Your task to perform on an android device: What is the news today? Image 0: 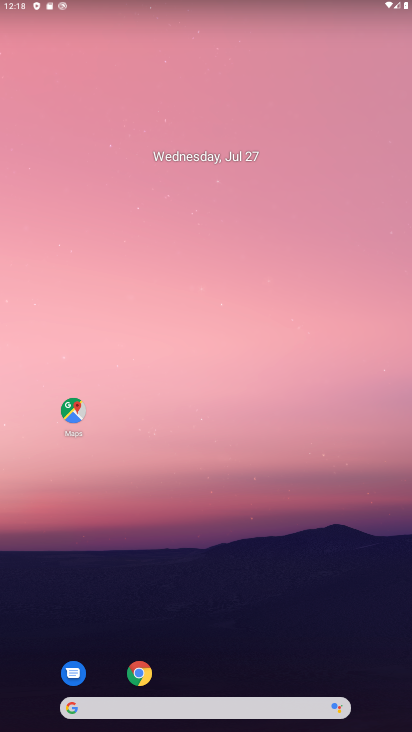
Step 0: drag from (319, 613) to (286, 59)
Your task to perform on an android device: What is the news today? Image 1: 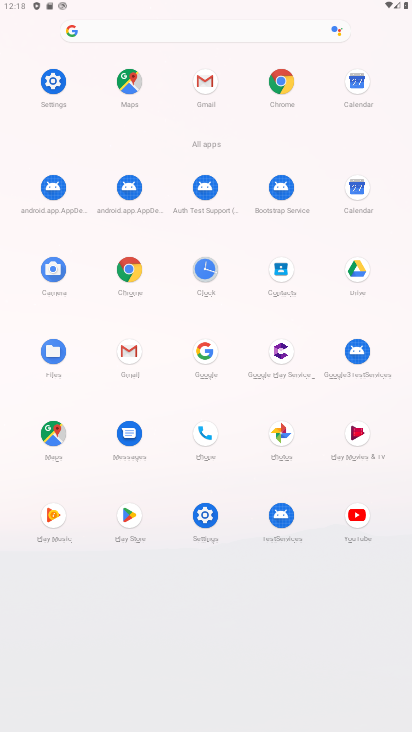
Step 1: click (286, 80)
Your task to perform on an android device: What is the news today? Image 2: 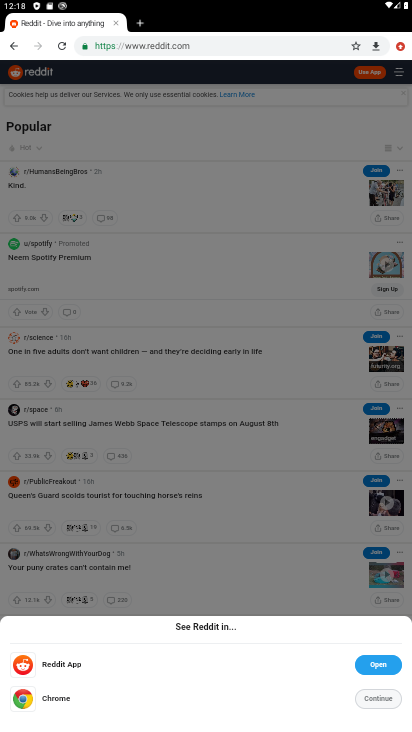
Step 2: click (215, 50)
Your task to perform on an android device: What is the news today? Image 3: 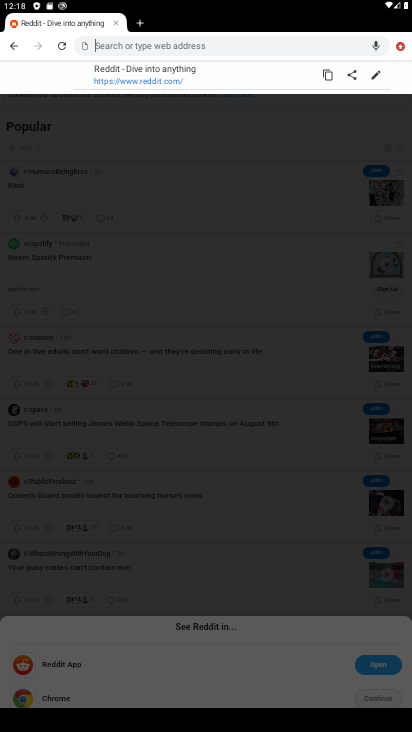
Step 3: type "news"
Your task to perform on an android device: What is the news today? Image 4: 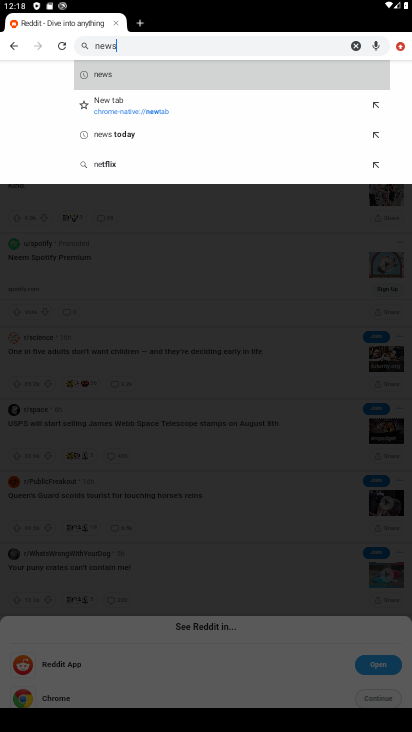
Step 4: type ""
Your task to perform on an android device: What is the news today? Image 5: 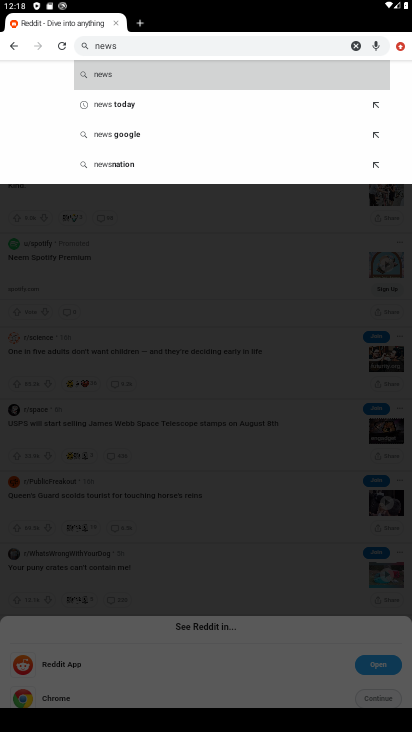
Step 5: click (117, 84)
Your task to perform on an android device: What is the news today? Image 6: 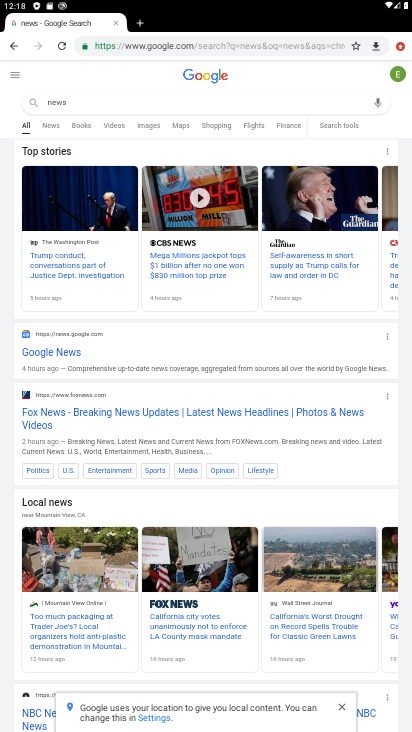
Step 6: click (71, 354)
Your task to perform on an android device: What is the news today? Image 7: 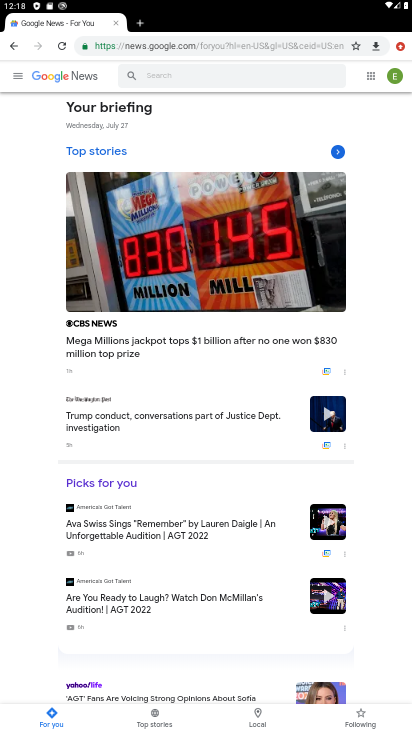
Step 7: task complete